Your task to perform on an android device: Open internet settings Image 0: 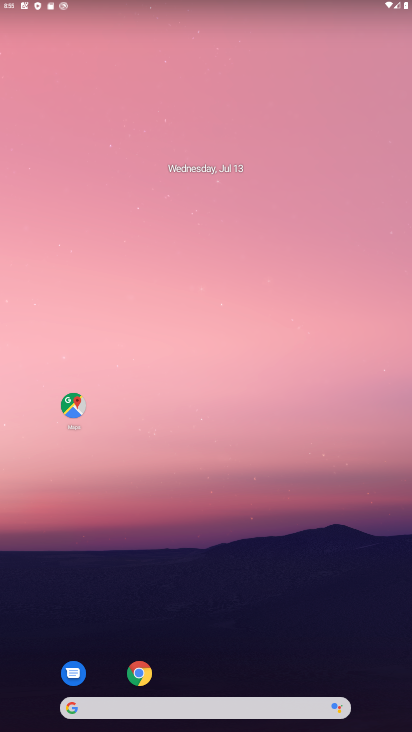
Step 0: drag from (182, 9) to (281, 472)
Your task to perform on an android device: Open internet settings Image 1: 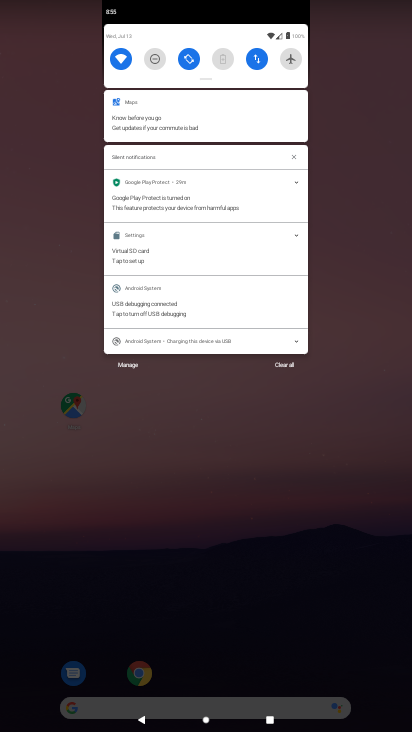
Step 1: click (256, 54)
Your task to perform on an android device: Open internet settings Image 2: 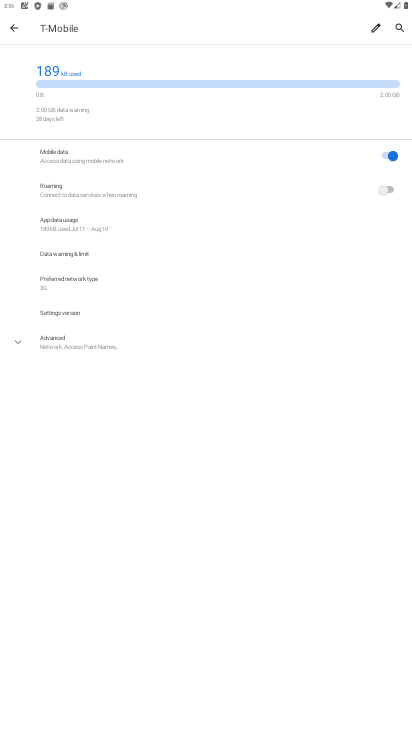
Step 2: task complete